Your task to perform on an android device: Find coffee shops on Maps Image 0: 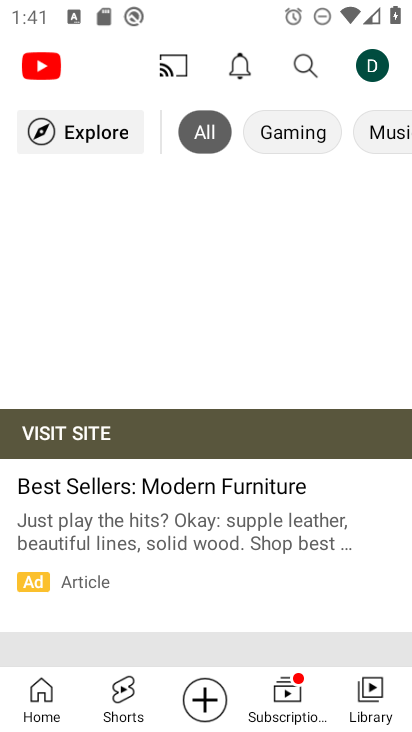
Step 0: press home button
Your task to perform on an android device: Find coffee shops on Maps Image 1: 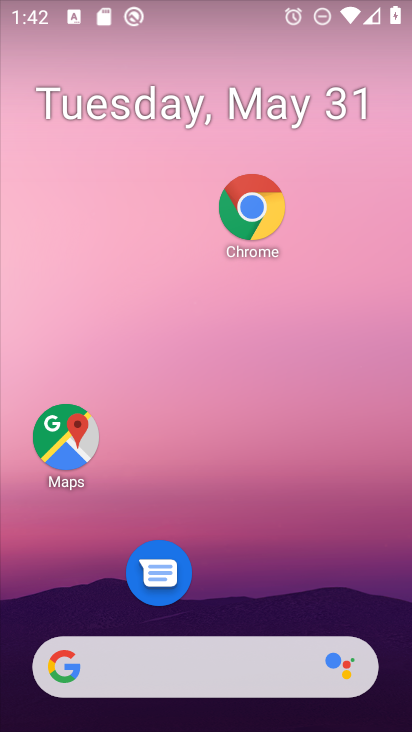
Step 1: drag from (300, 564) to (323, 191)
Your task to perform on an android device: Find coffee shops on Maps Image 2: 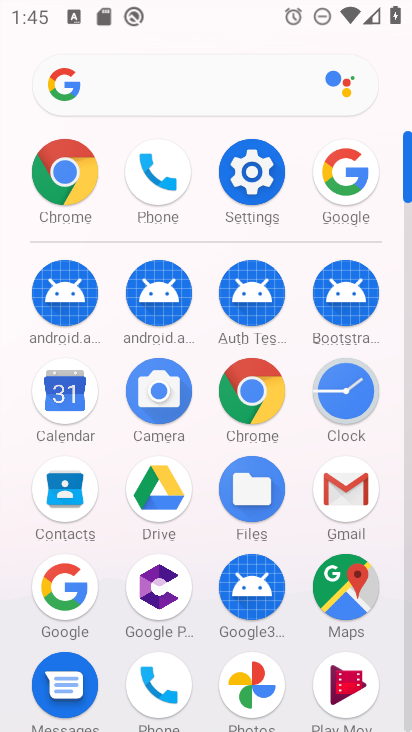
Step 2: click (350, 593)
Your task to perform on an android device: Find coffee shops on Maps Image 3: 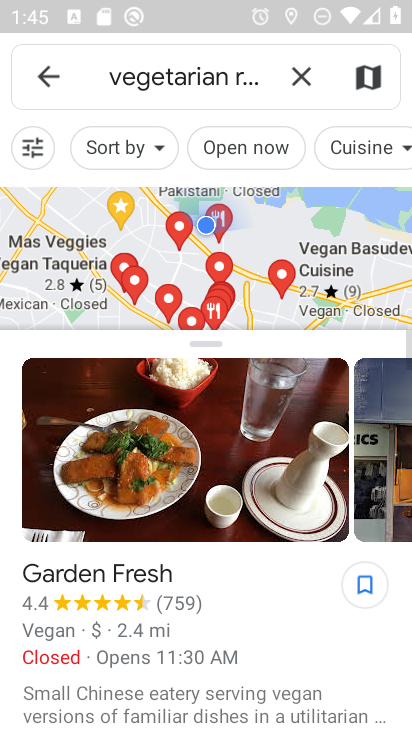
Step 3: click (279, 67)
Your task to perform on an android device: Find coffee shops on Maps Image 4: 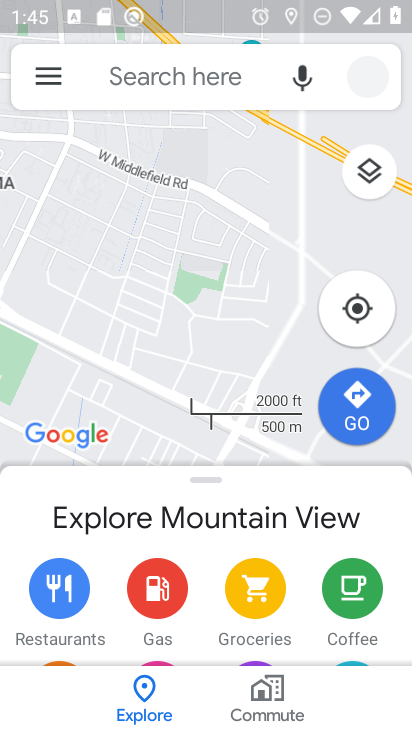
Step 4: click (188, 80)
Your task to perform on an android device: Find coffee shops on Maps Image 5: 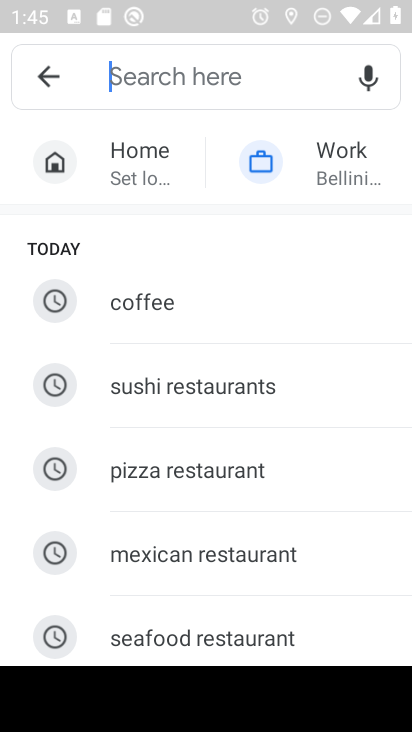
Step 5: type "coffee shops"
Your task to perform on an android device: Find coffee shops on Maps Image 6: 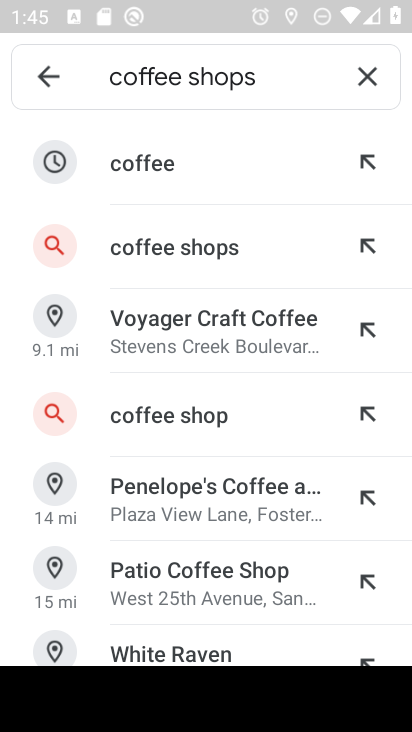
Step 6: click (180, 257)
Your task to perform on an android device: Find coffee shops on Maps Image 7: 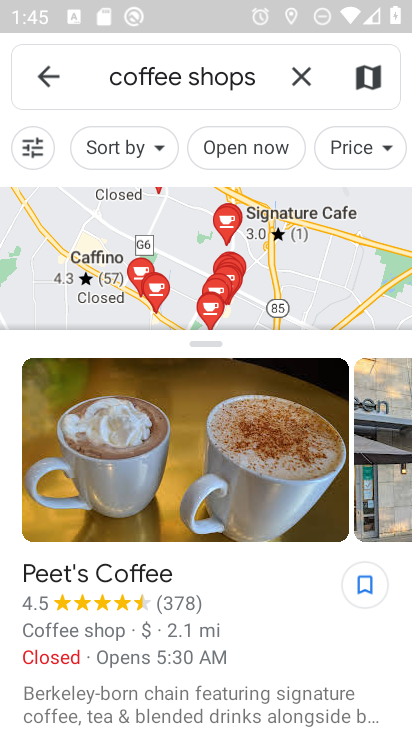
Step 7: task complete